Your task to perform on an android device: turn notification dots off Image 0: 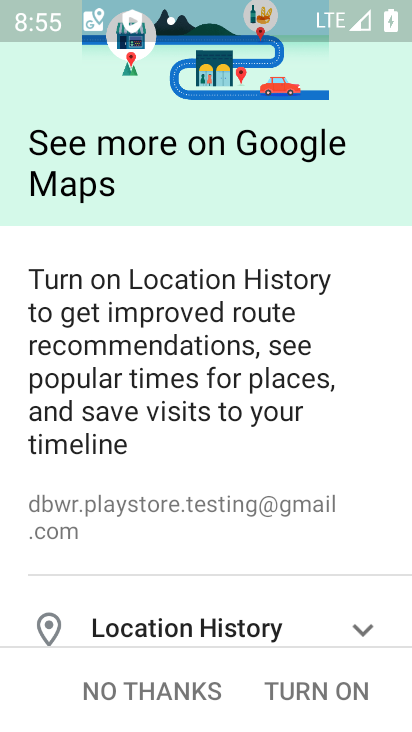
Step 0: press home button
Your task to perform on an android device: turn notification dots off Image 1: 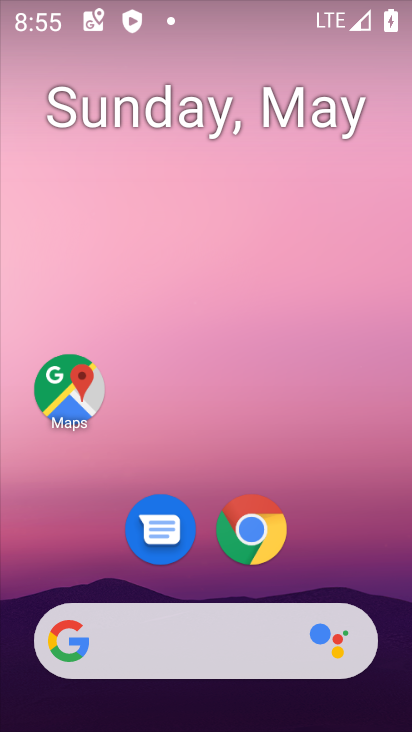
Step 1: drag from (228, 580) to (192, 16)
Your task to perform on an android device: turn notification dots off Image 2: 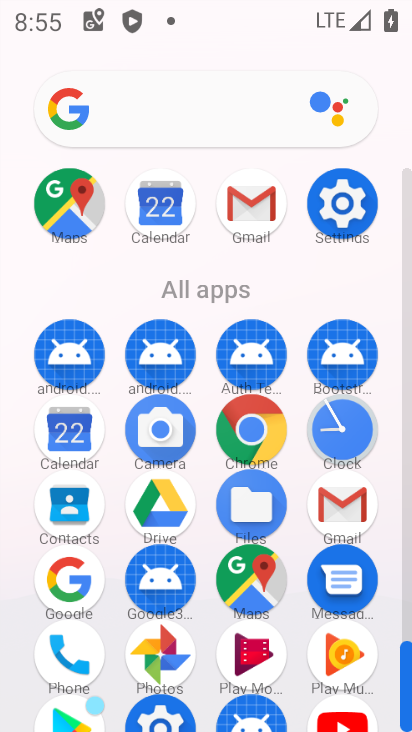
Step 2: click (354, 204)
Your task to perform on an android device: turn notification dots off Image 3: 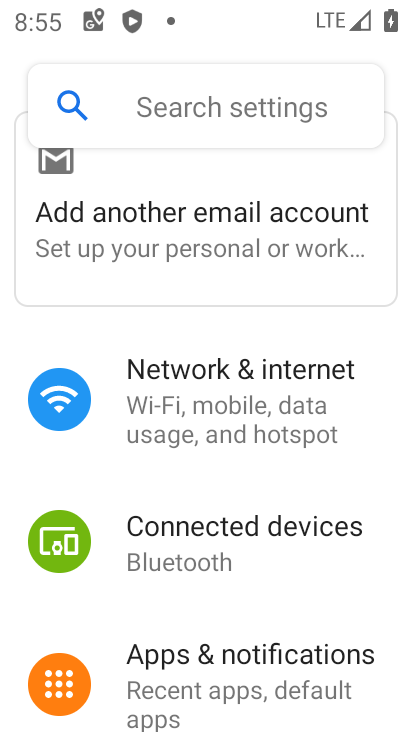
Step 3: click (211, 664)
Your task to perform on an android device: turn notification dots off Image 4: 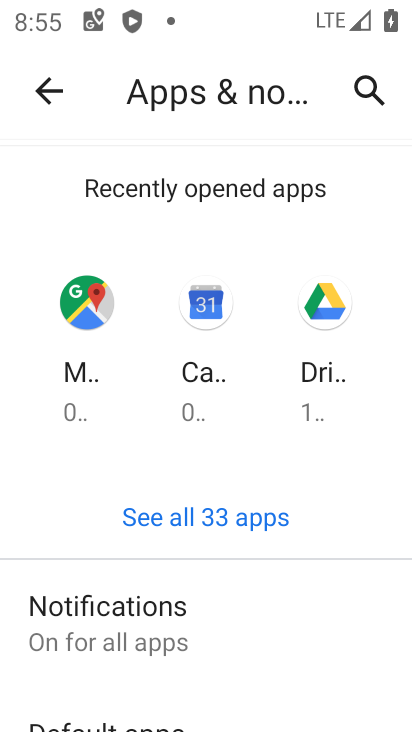
Step 4: click (194, 599)
Your task to perform on an android device: turn notification dots off Image 5: 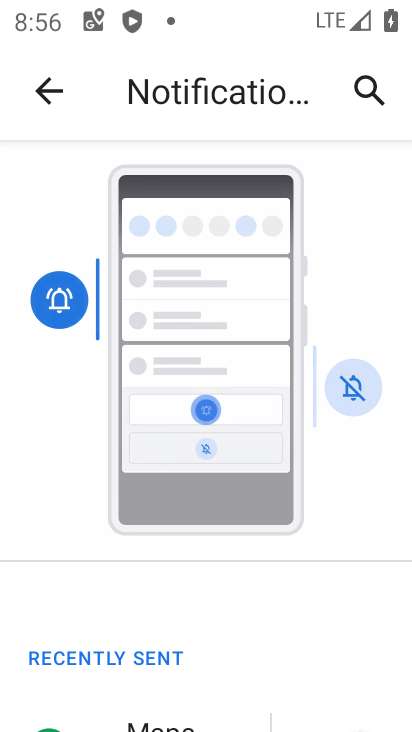
Step 5: drag from (124, 663) to (102, 142)
Your task to perform on an android device: turn notification dots off Image 6: 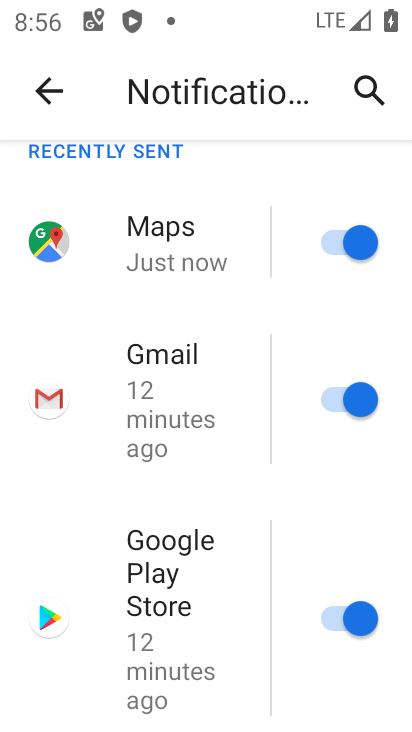
Step 6: drag from (132, 682) to (138, 187)
Your task to perform on an android device: turn notification dots off Image 7: 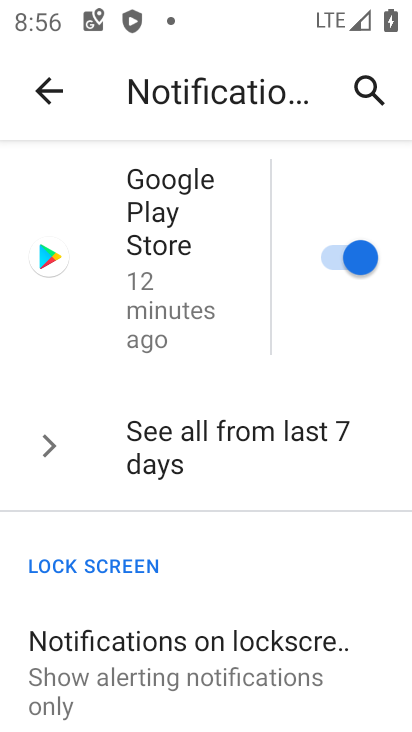
Step 7: drag from (167, 669) to (168, 233)
Your task to perform on an android device: turn notification dots off Image 8: 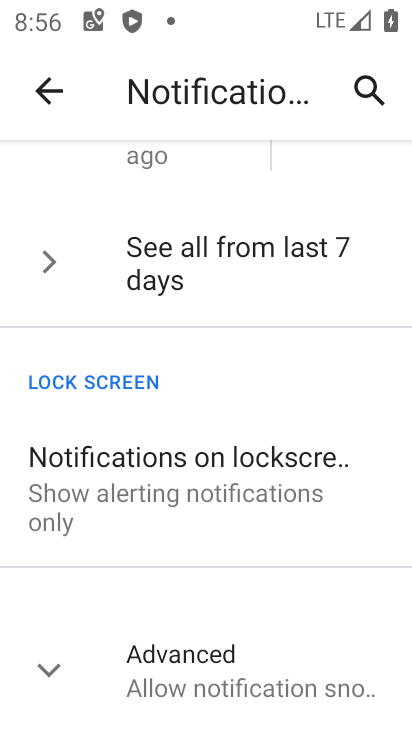
Step 8: click (262, 670)
Your task to perform on an android device: turn notification dots off Image 9: 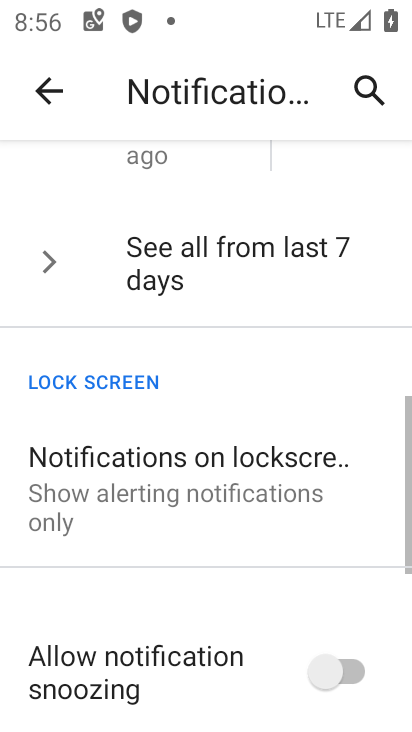
Step 9: drag from (265, 690) to (181, 158)
Your task to perform on an android device: turn notification dots off Image 10: 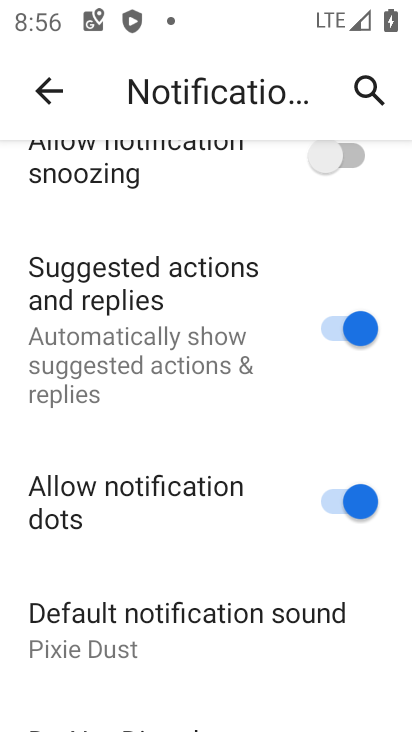
Step 10: click (317, 498)
Your task to perform on an android device: turn notification dots off Image 11: 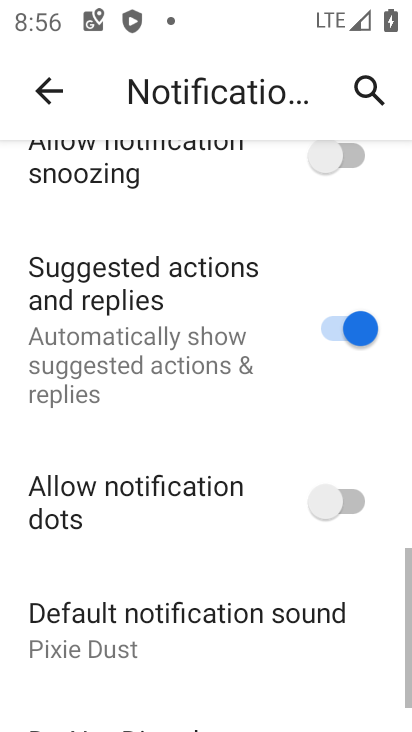
Step 11: task complete